Your task to perform on an android device: turn on bluetooth scan Image 0: 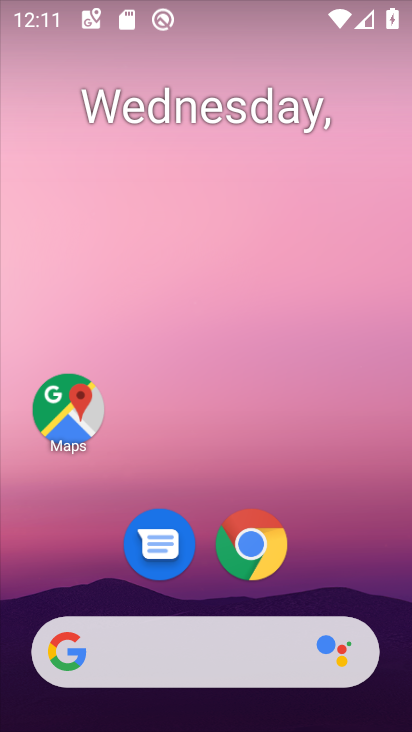
Step 0: drag from (227, 465) to (143, 131)
Your task to perform on an android device: turn on bluetooth scan Image 1: 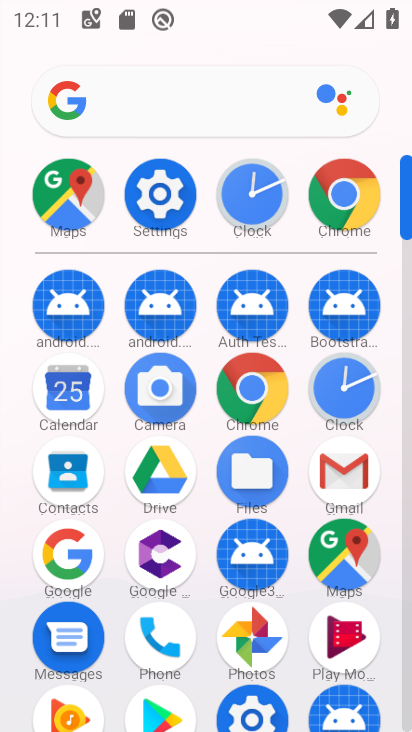
Step 1: drag from (215, 167) to (192, 70)
Your task to perform on an android device: turn on bluetooth scan Image 2: 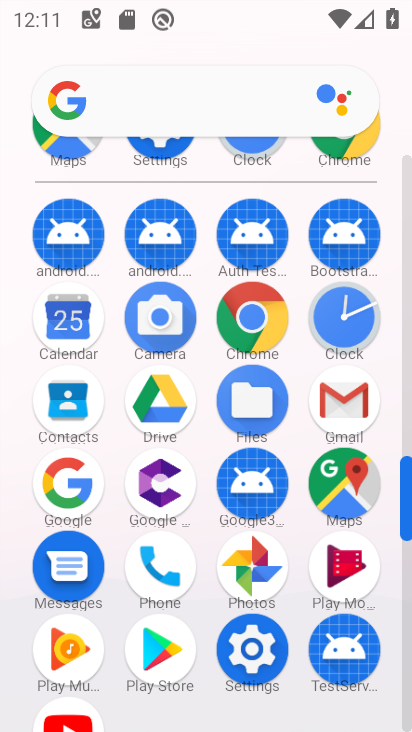
Step 2: click (266, 668)
Your task to perform on an android device: turn on bluetooth scan Image 3: 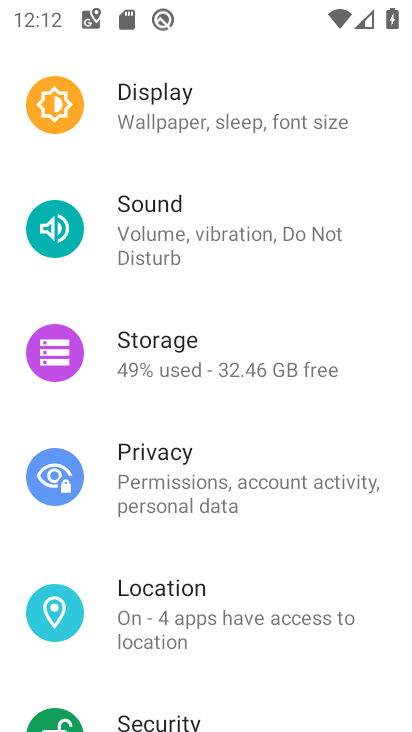
Step 3: drag from (184, 415) to (280, 707)
Your task to perform on an android device: turn on bluetooth scan Image 4: 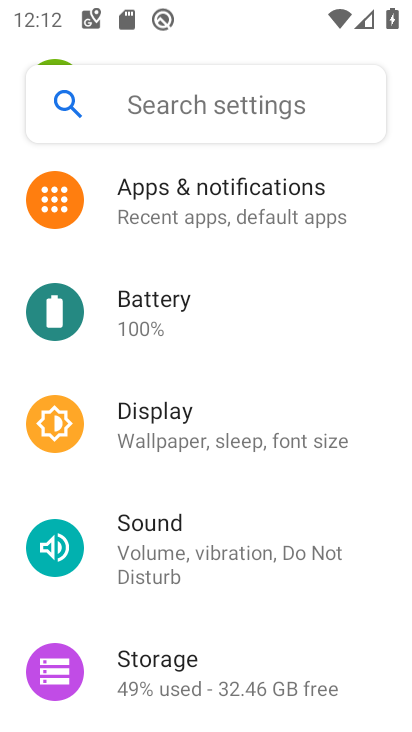
Step 4: drag from (185, 276) to (289, 666)
Your task to perform on an android device: turn on bluetooth scan Image 5: 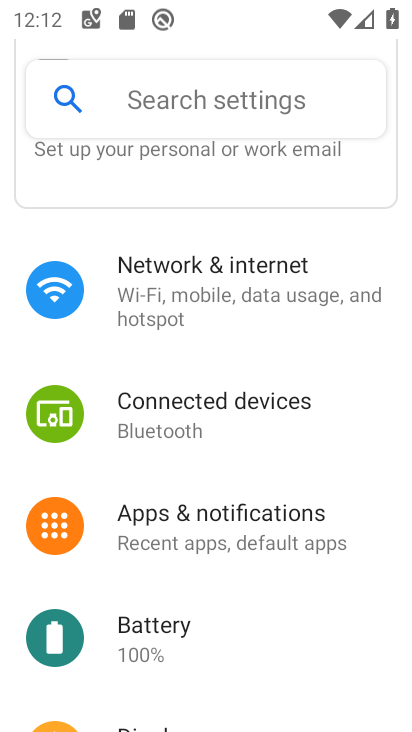
Step 5: drag from (248, 623) to (161, 140)
Your task to perform on an android device: turn on bluetooth scan Image 6: 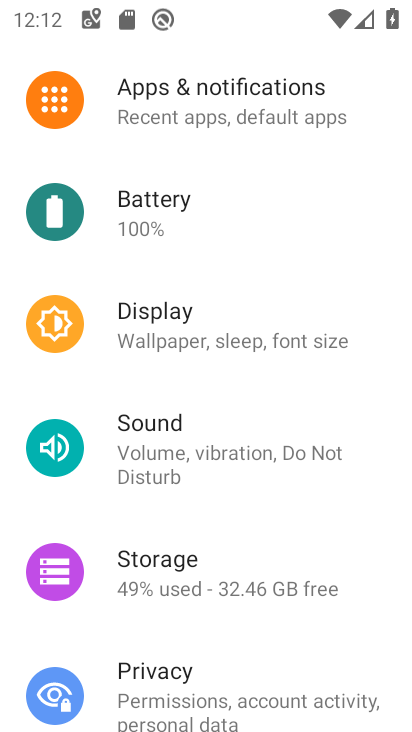
Step 6: drag from (197, 608) to (156, 256)
Your task to perform on an android device: turn on bluetooth scan Image 7: 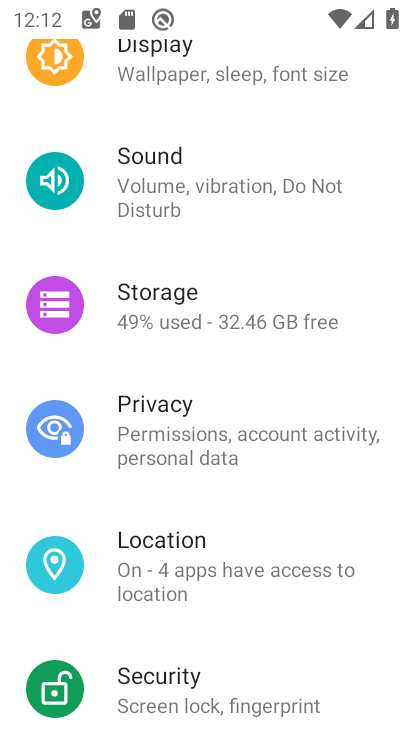
Step 7: click (200, 582)
Your task to perform on an android device: turn on bluetooth scan Image 8: 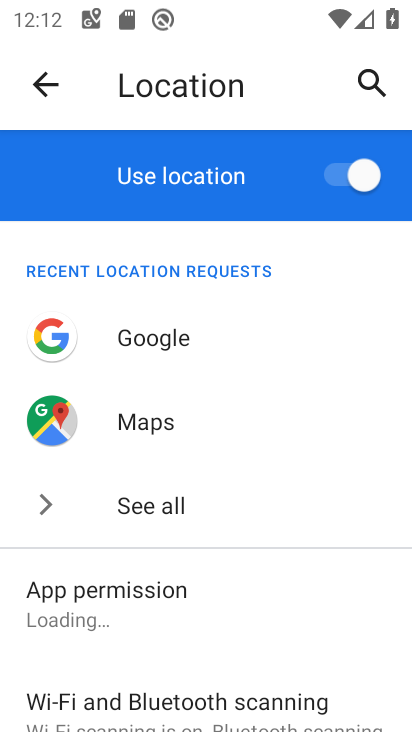
Step 8: drag from (177, 608) to (147, 255)
Your task to perform on an android device: turn on bluetooth scan Image 9: 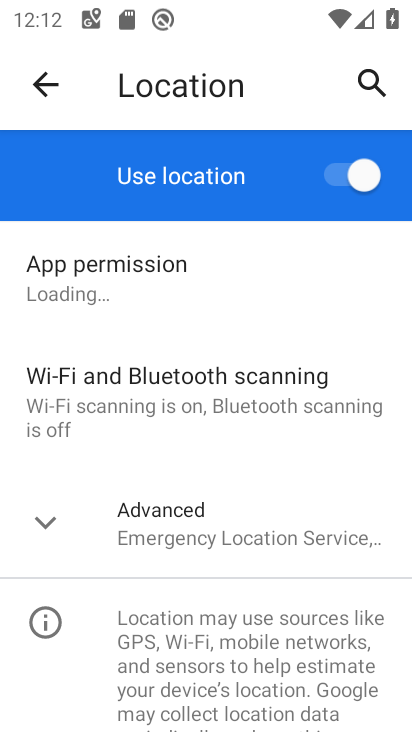
Step 9: click (161, 396)
Your task to perform on an android device: turn on bluetooth scan Image 10: 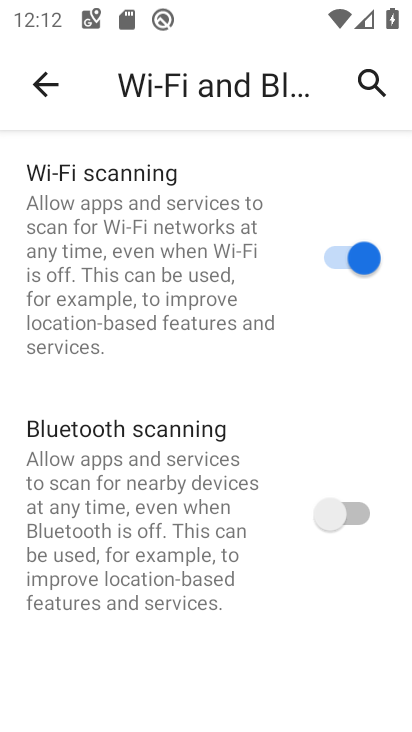
Step 10: click (322, 519)
Your task to perform on an android device: turn on bluetooth scan Image 11: 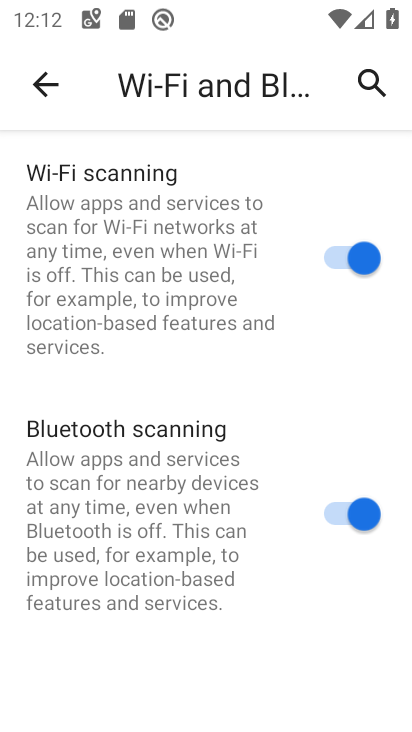
Step 11: task complete